Your task to perform on an android device: install app "Google Play Music" Image 0: 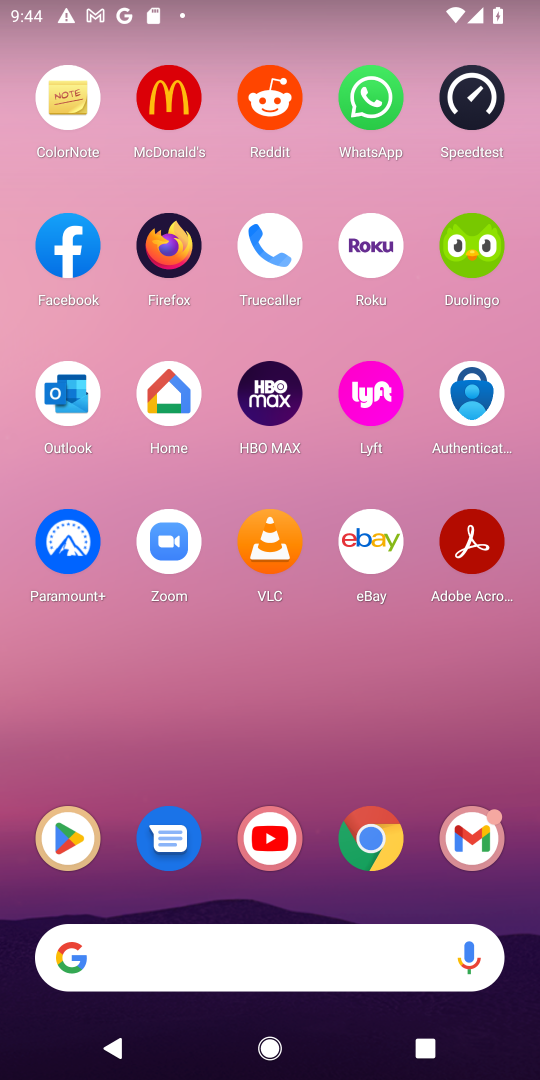
Step 0: drag from (357, 564) to (401, 101)
Your task to perform on an android device: install app "Google Play Music" Image 1: 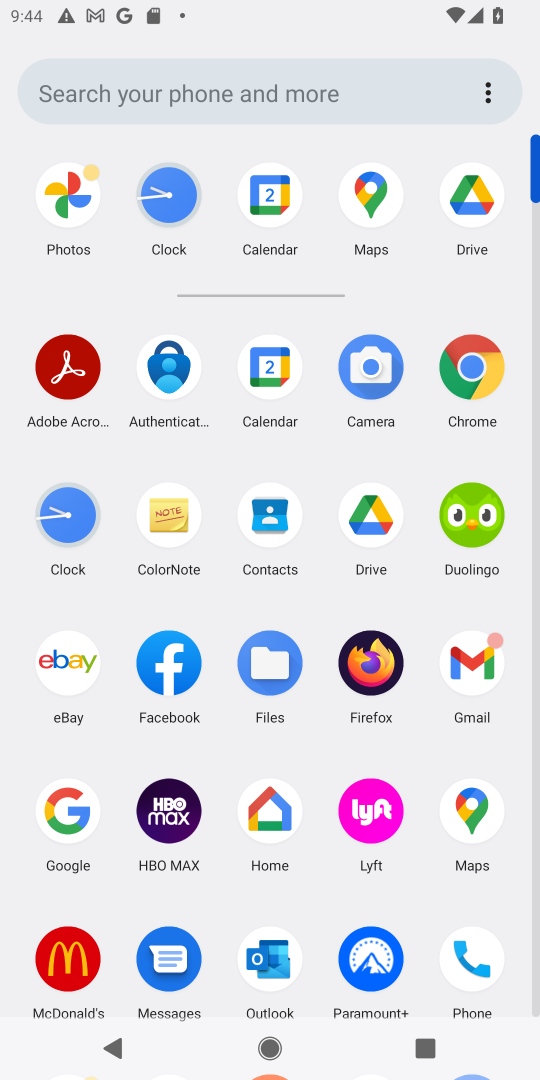
Step 1: drag from (412, 882) to (415, 425)
Your task to perform on an android device: install app "Google Play Music" Image 2: 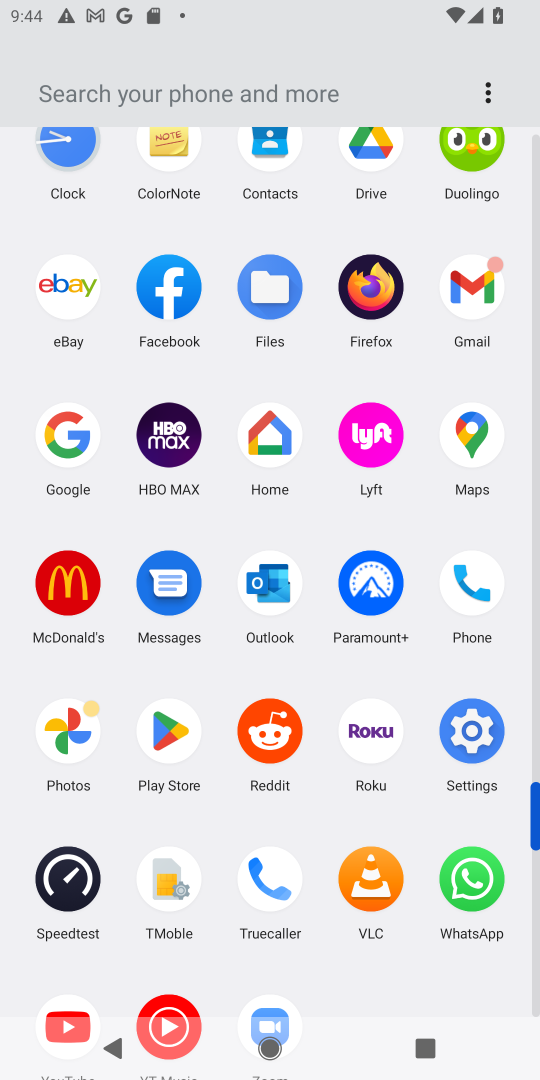
Step 2: click (158, 732)
Your task to perform on an android device: install app "Google Play Music" Image 3: 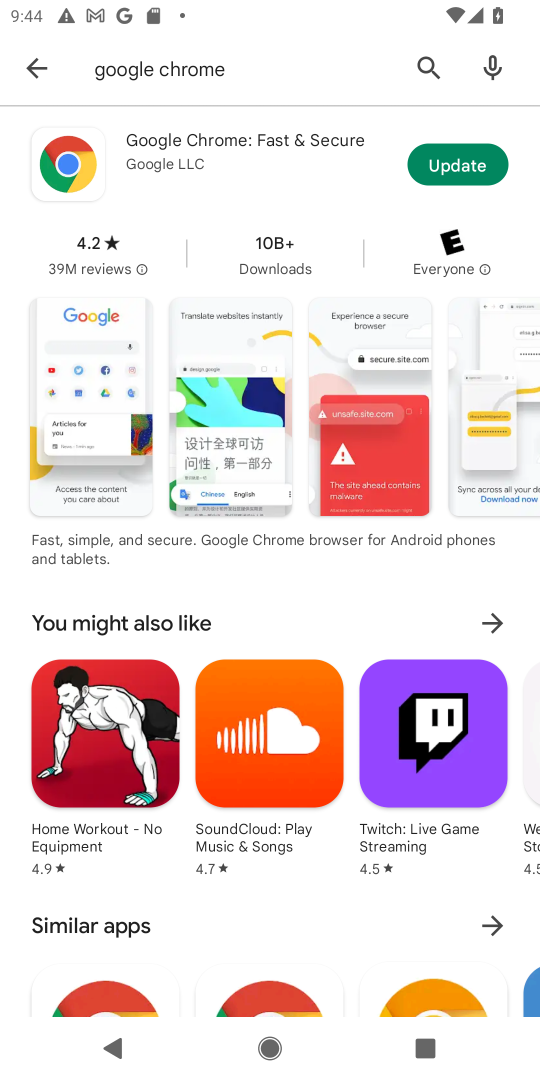
Step 3: click (422, 57)
Your task to perform on an android device: install app "Google Play Music" Image 4: 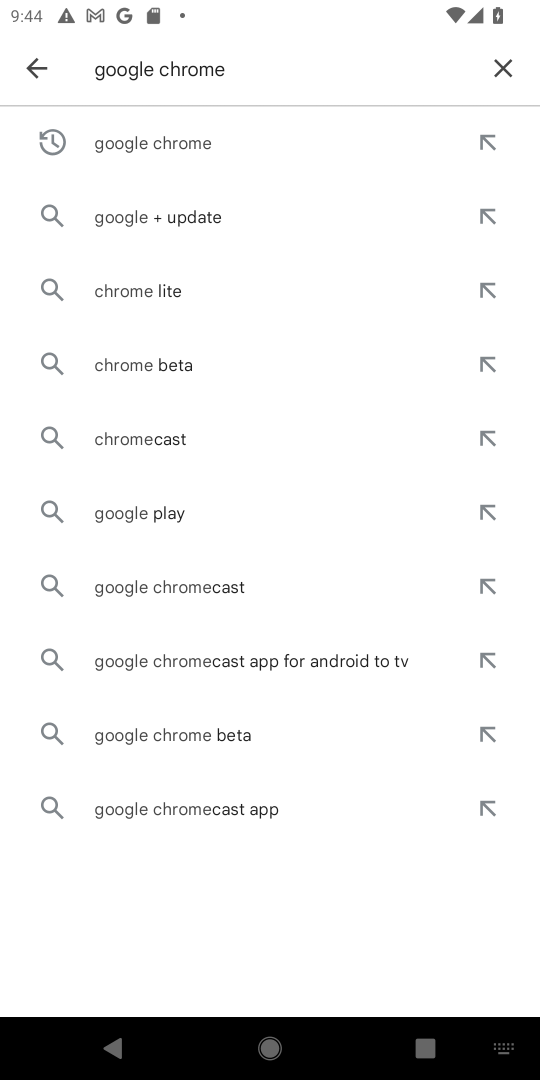
Step 4: click (502, 55)
Your task to perform on an android device: install app "Google Play Music" Image 5: 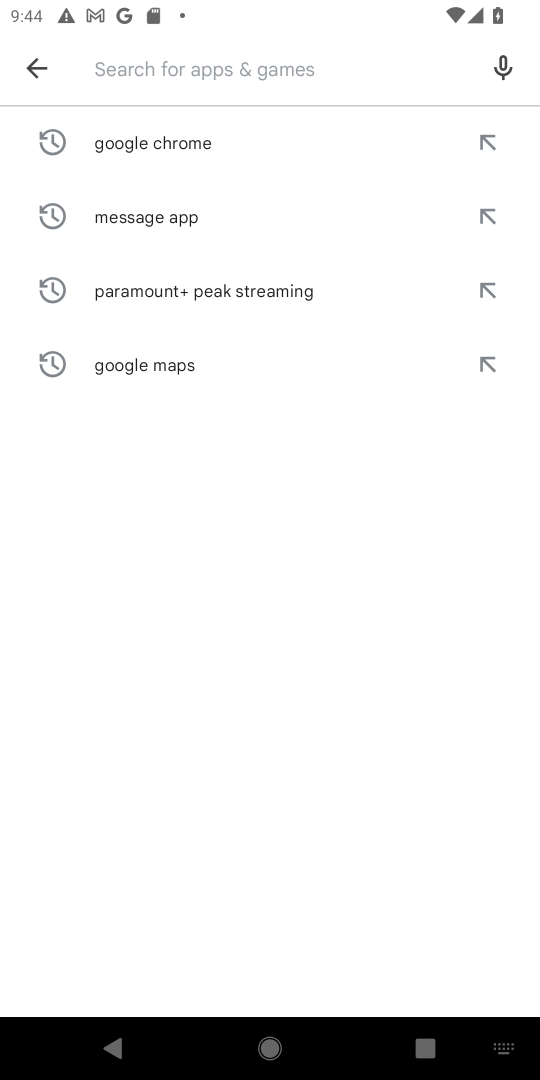
Step 5: click (396, 64)
Your task to perform on an android device: install app "Google Play Music" Image 6: 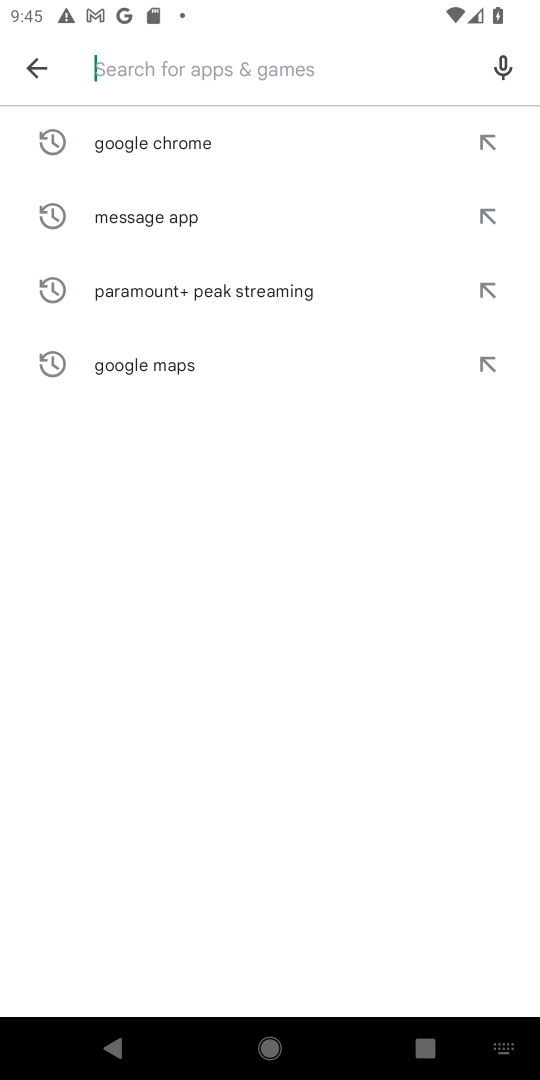
Step 6: type "google play music"
Your task to perform on an android device: install app "Google Play Music" Image 7: 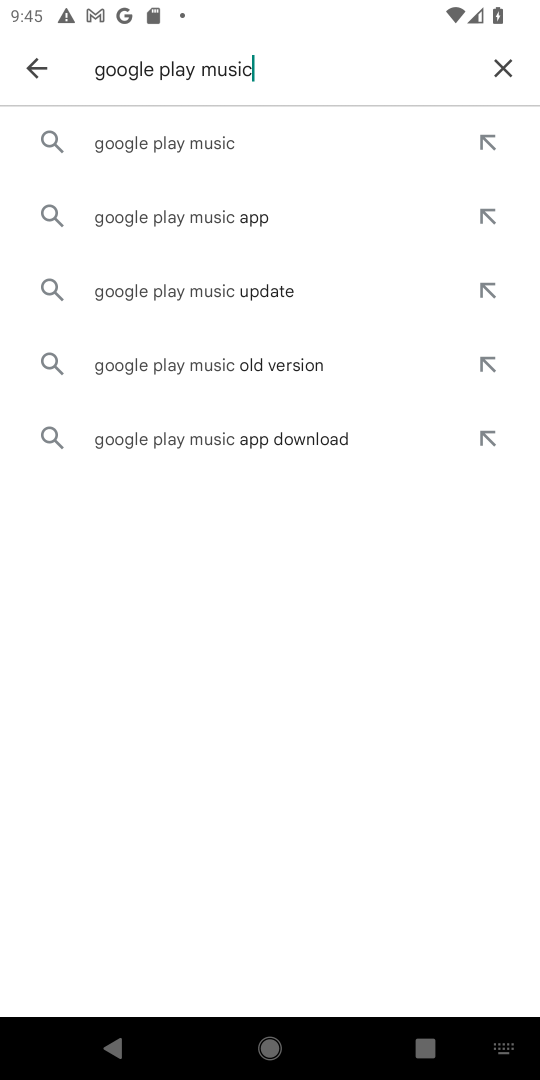
Step 7: click (180, 128)
Your task to perform on an android device: install app "Google Play Music" Image 8: 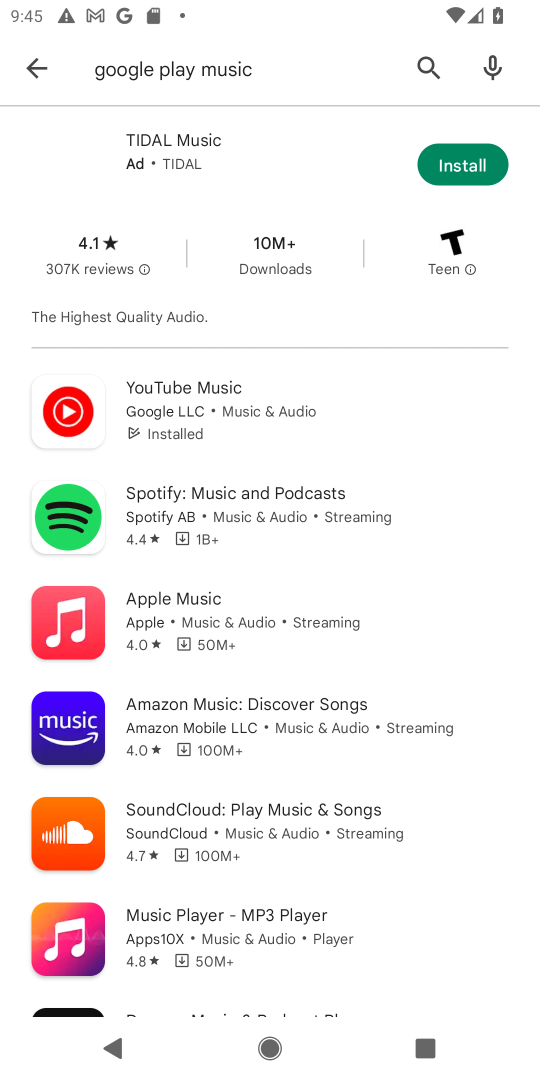
Step 8: task complete